Your task to perform on an android device: find snoozed emails in the gmail app Image 0: 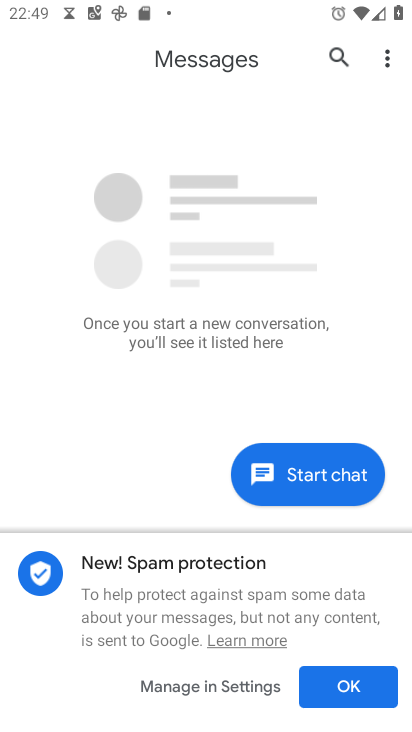
Step 0: press home button
Your task to perform on an android device: find snoozed emails in the gmail app Image 1: 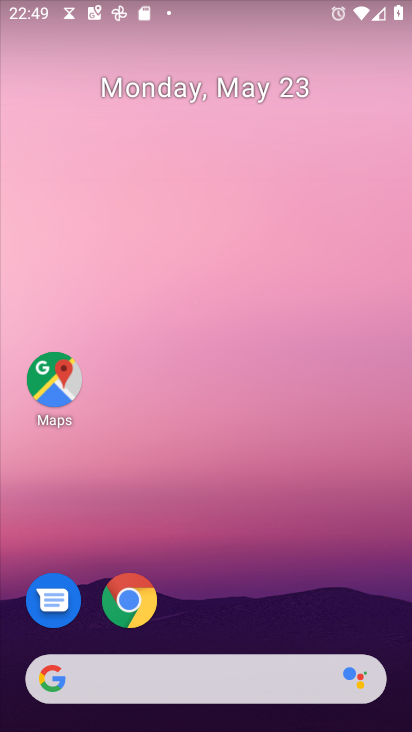
Step 1: drag from (193, 726) to (191, 152)
Your task to perform on an android device: find snoozed emails in the gmail app Image 2: 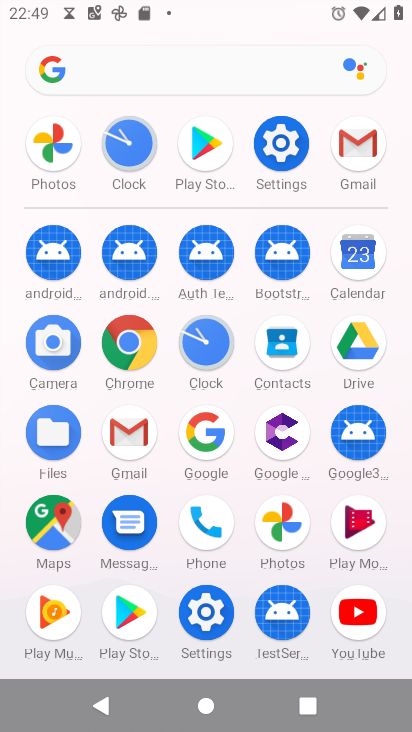
Step 2: click (132, 430)
Your task to perform on an android device: find snoozed emails in the gmail app Image 3: 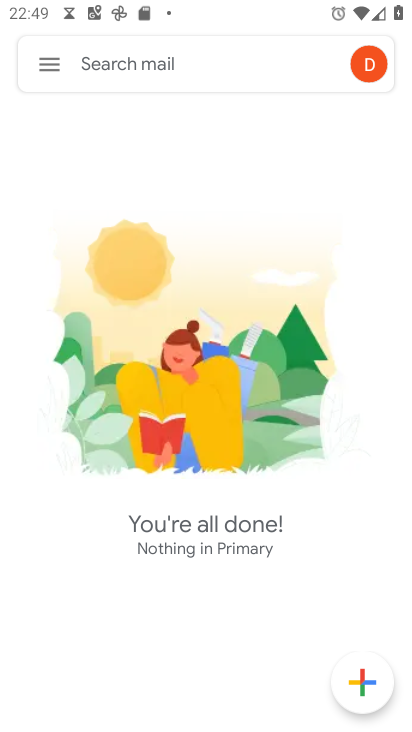
Step 3: click (51, 66)
Your task to perform on an android device: find snoozed emails in the gmail app Image 4: 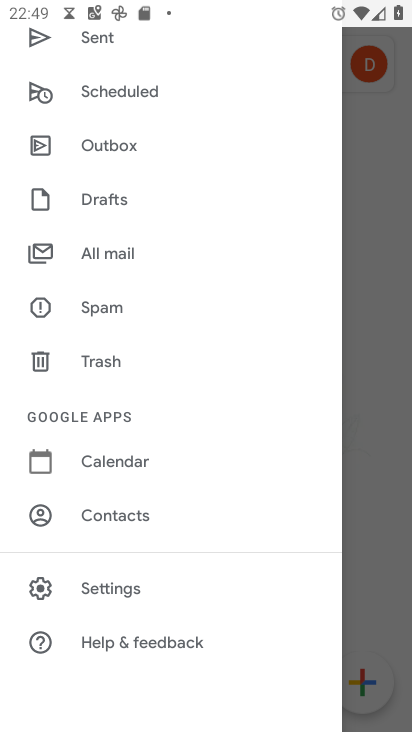
Step 4: drag from (122, 131) to (161, 443)
Your task to perform on an android device: find snoozed emails in the gmail app Image 5: 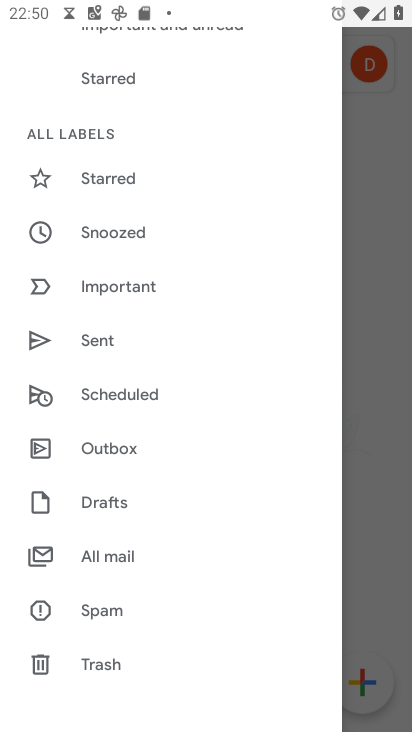
Step 5: click (117, 226)
Your task to perform on an android device: find snoozed emails in the gmail app Image 6: 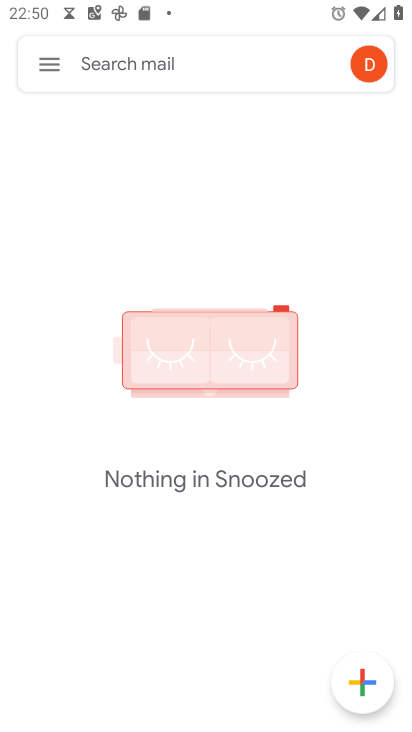
Step 6: task complete